Your task to perform on an android device: Search for the most popular coffee table on Crate & Barrel Image 0: 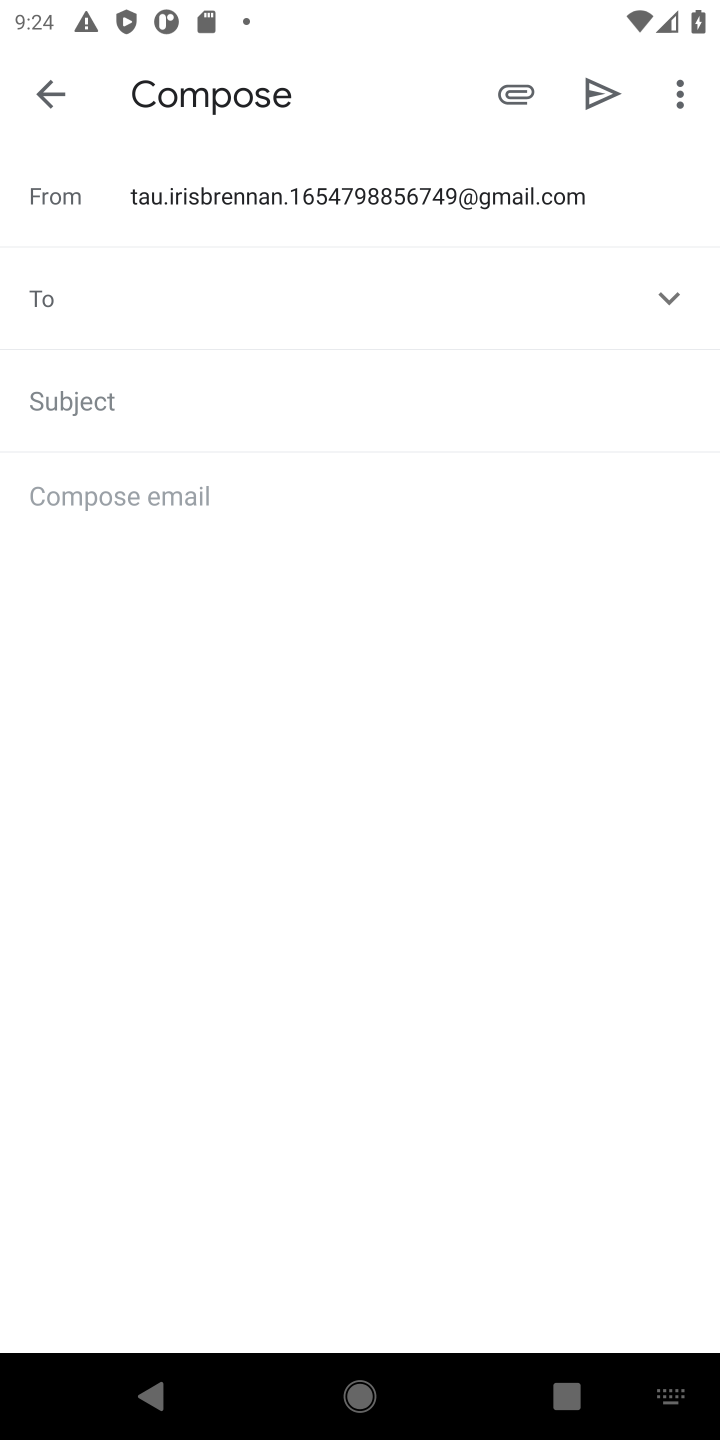
Step 0: press home button
Your task to perform on an android device: Search for the most popular coffee table on Crate & Barrel Image 1: 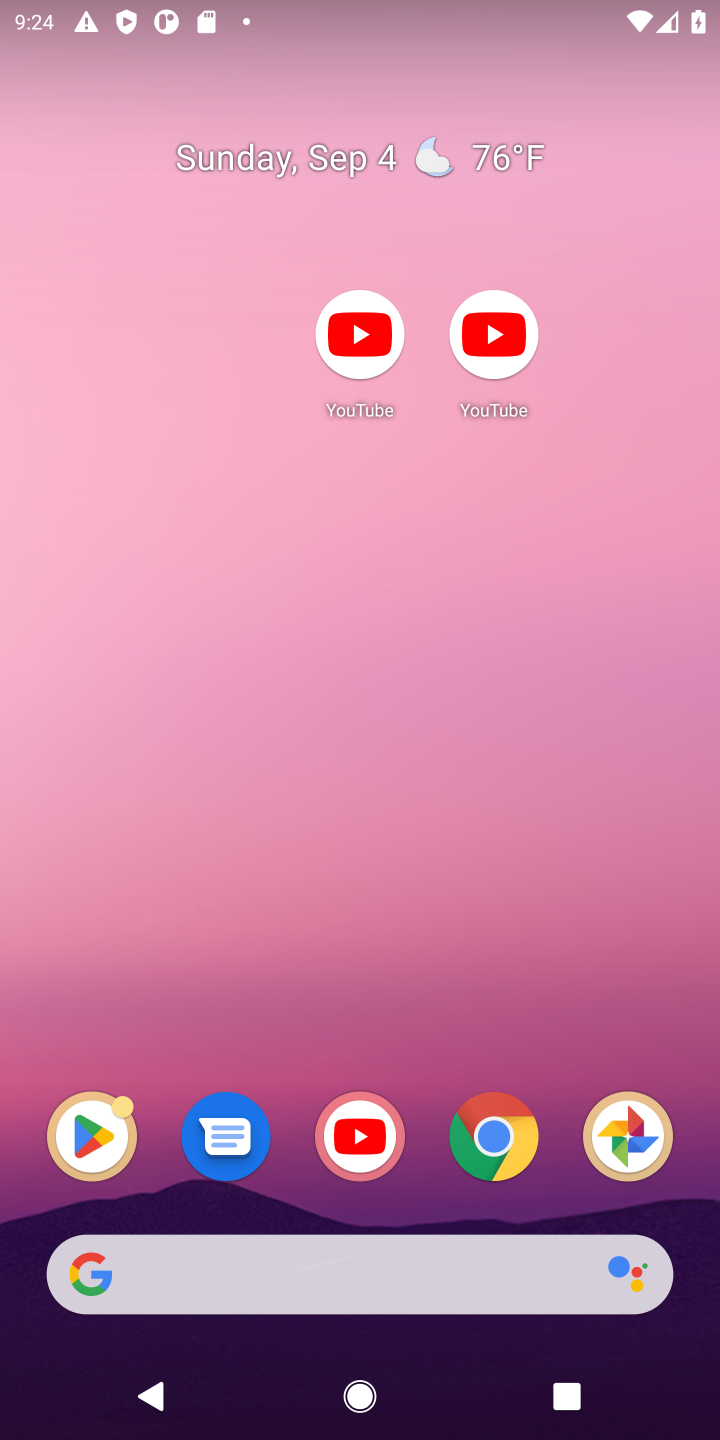
Step 1: drag from (376, 941) to (434, 44)
Your task to perform on an android device: Search for the most popular coffee table on Crate & Barrel Image 2: 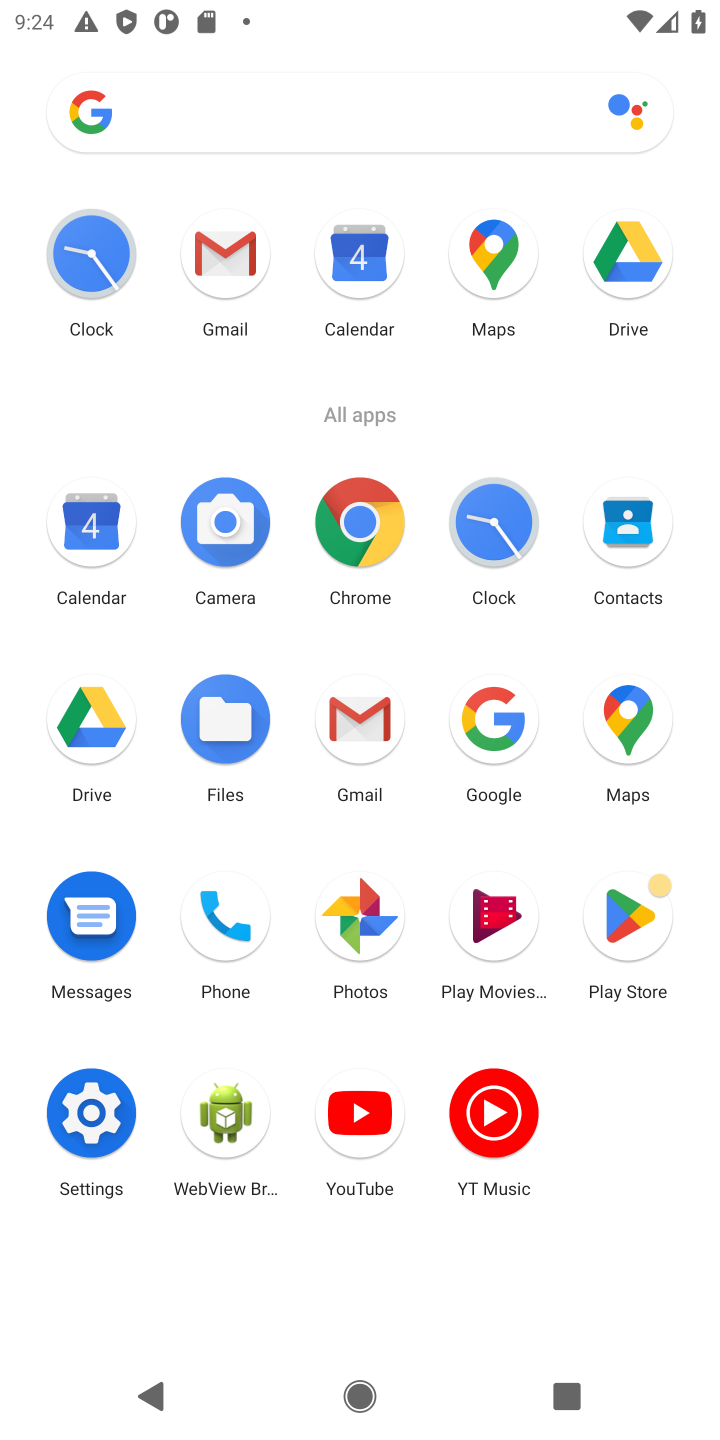
Step 2: click (474, 741)
Your task to perform on an android device: Search for the most popular coffee table on Crate & Barrel Image 3: 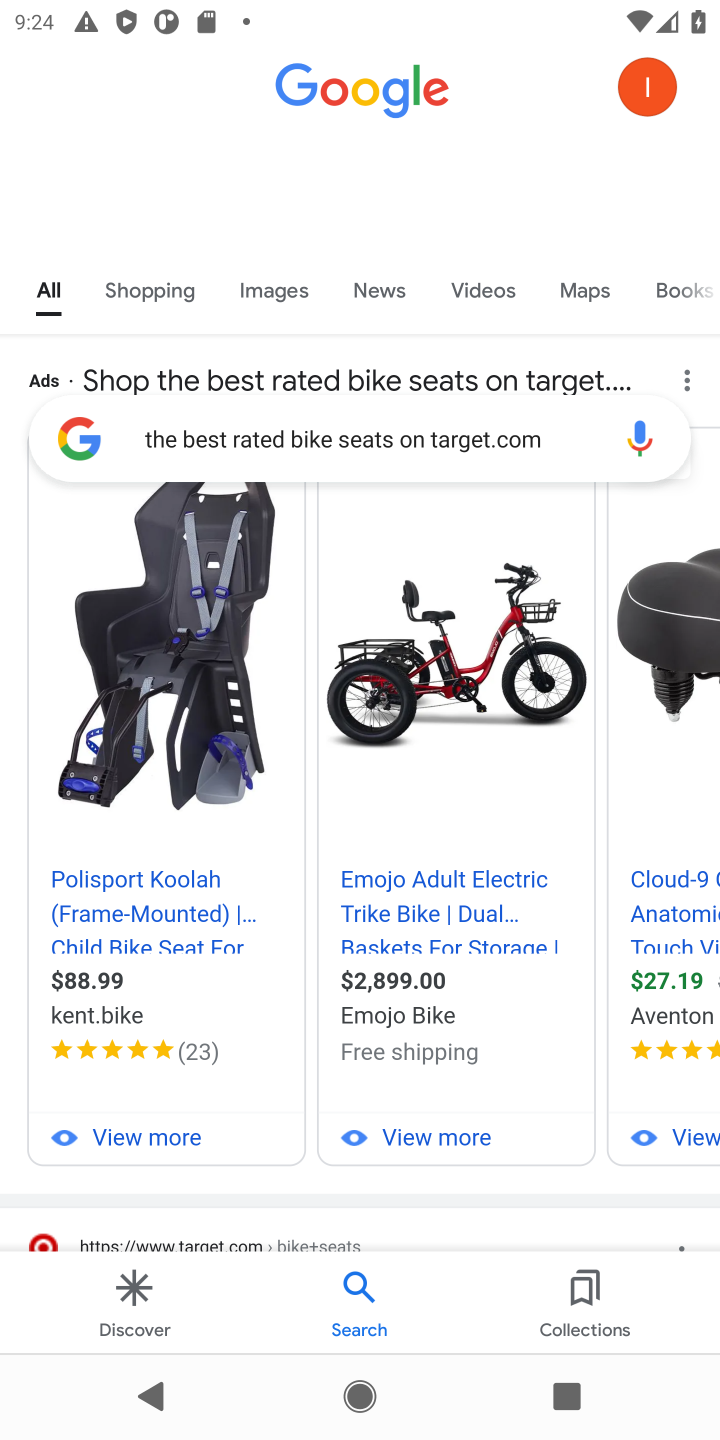
Step 3: click (554, 453)
Your task to perform on an android device: Search for the most popular coffee table on Crate & Barrel Image 4: 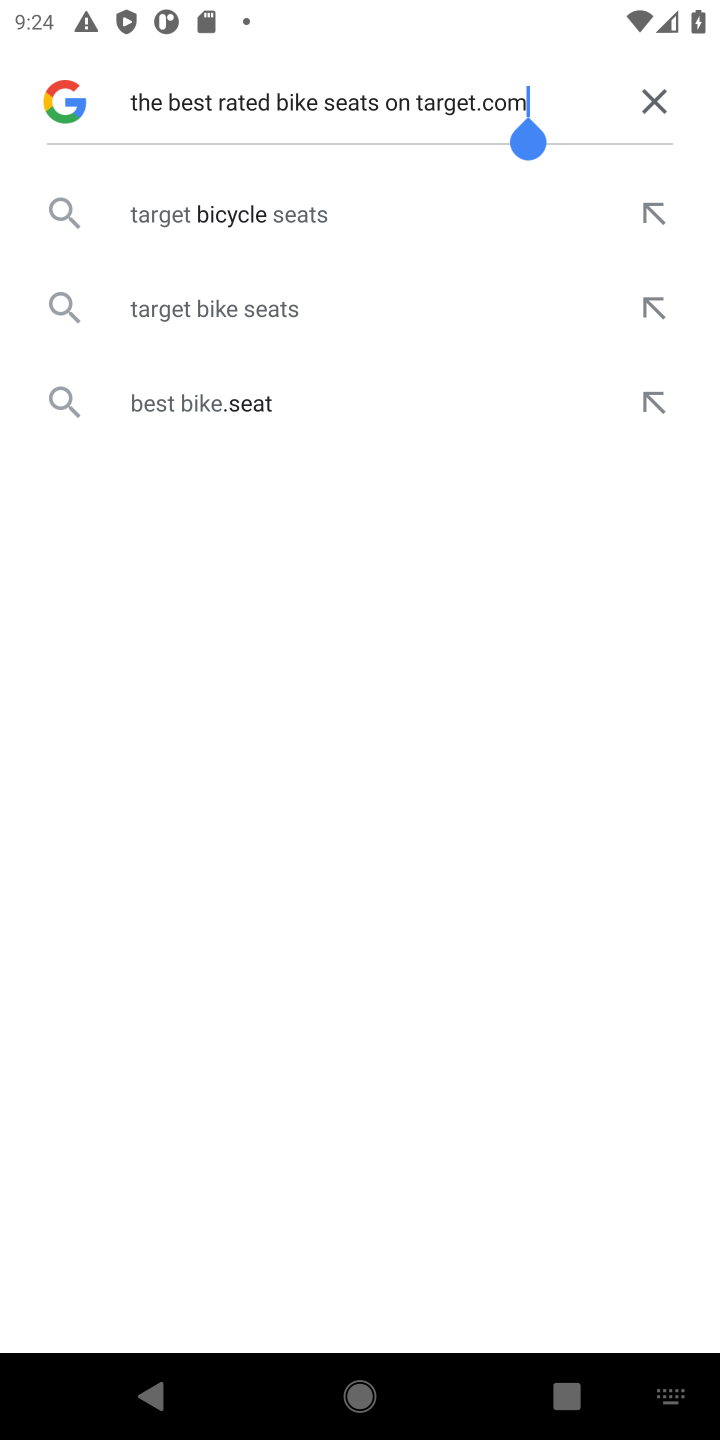
Step 4: click (651, 96)
Your task to perform on an android device: Search for the most popular coffee table on Crate & Barrel Image 5: 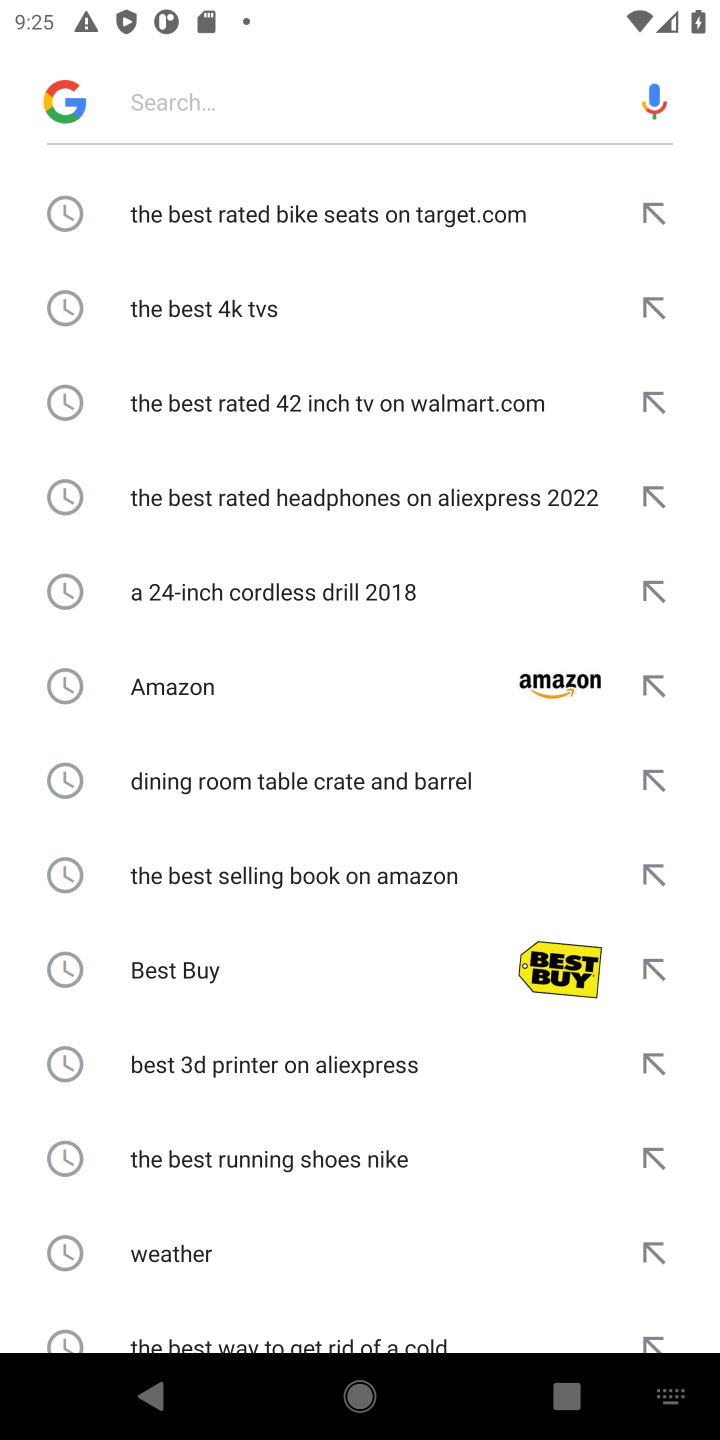
Step 5: type "the most popular coffee table on Crate & Barrel"
Your task to perform on an android device: Search for the most popular coffee table on Crate & Barrel Image 6: 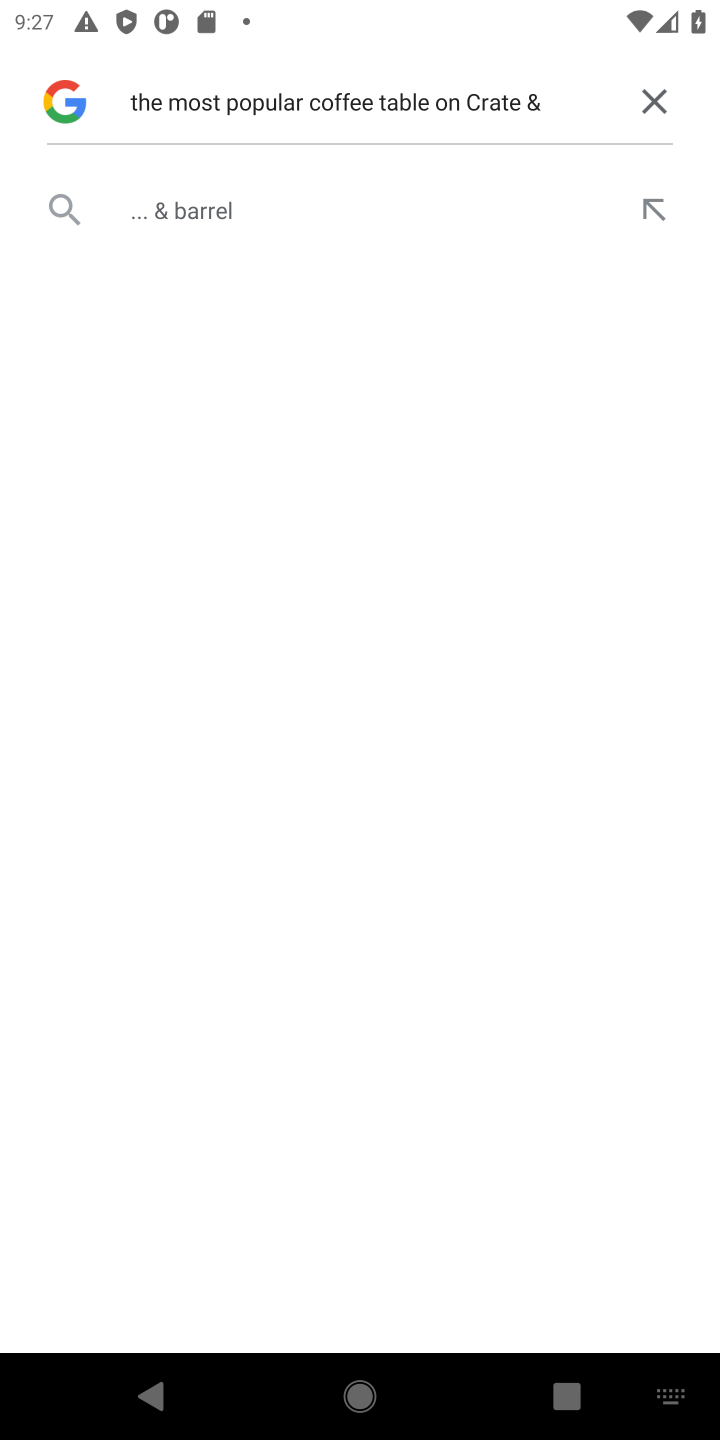
Step 6: click (154, 233)
Your task to perform on an android device: Search for the most popular coffee table on Crate & Barrel Image 7: 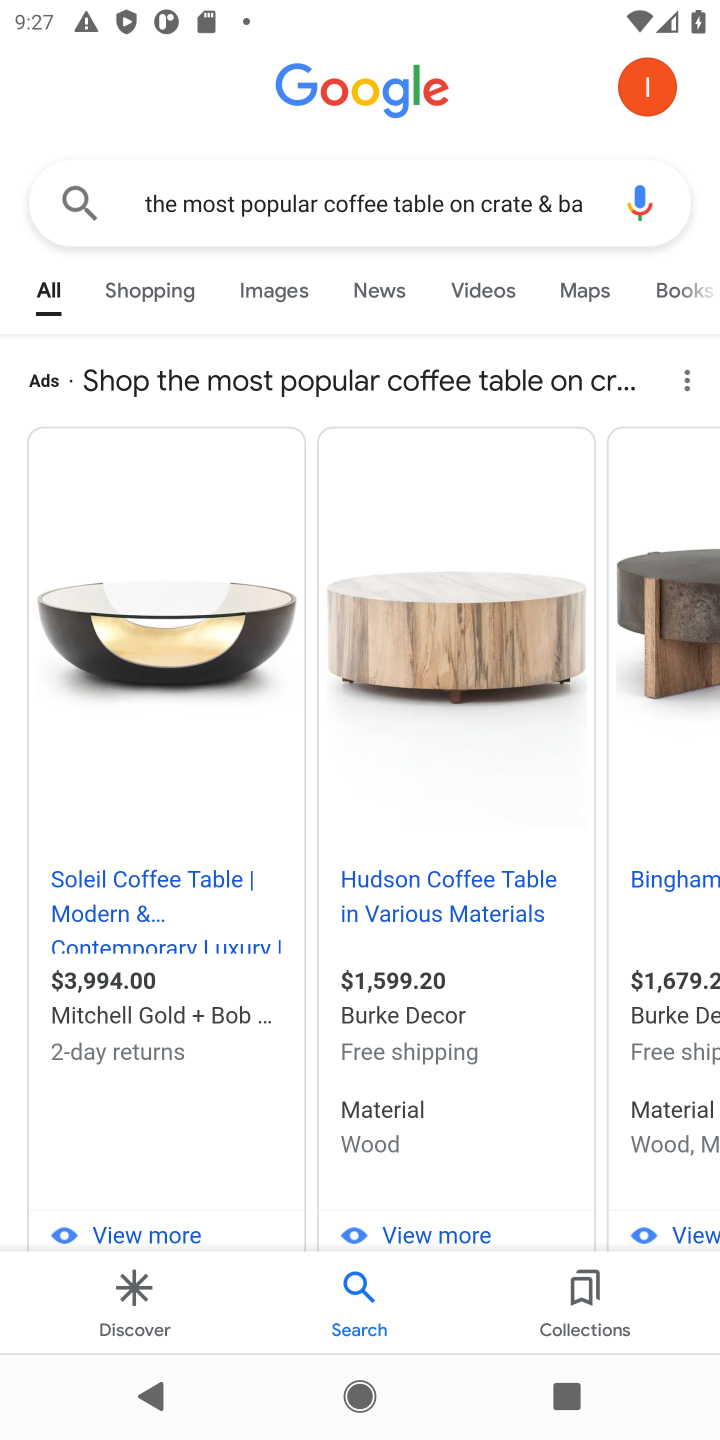
Step 7: task complete